Your task to perform on an android device: Go to Yahoo.com Image 0: 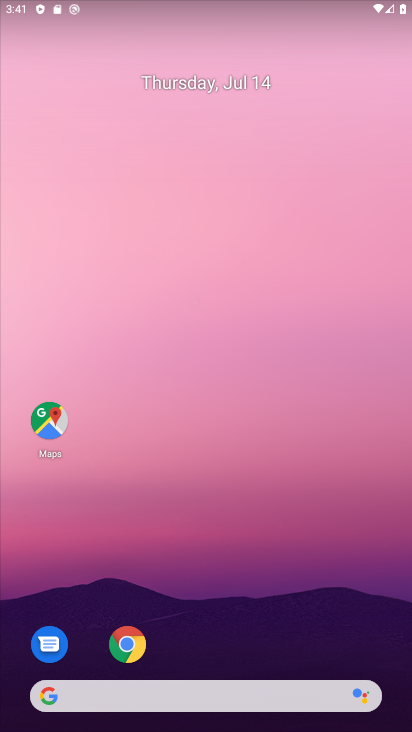
Step 0: click (127, 638)
Your task to perform on an android device: Go to Yahoo.com Image 1: 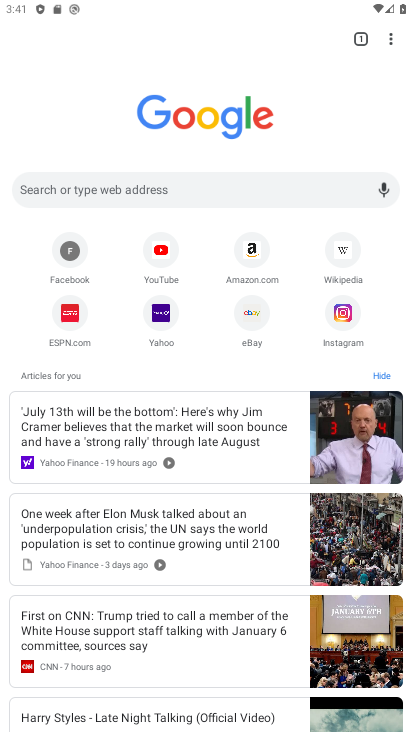
Step 1: click (154, 321)
Your task to perform on an android device: Go to Yahoo.com Image 2: 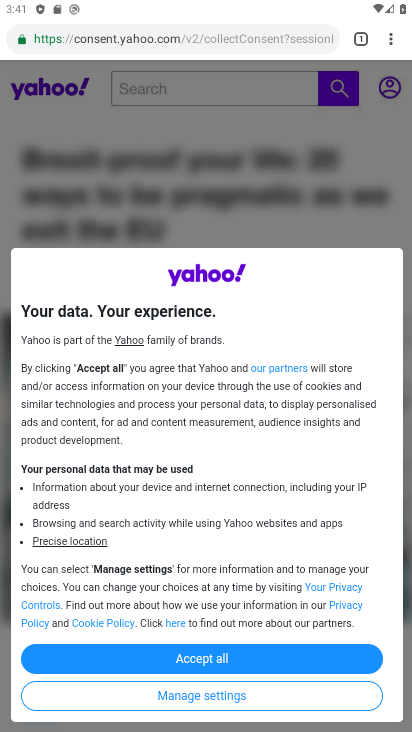
Step 2: task complete